Your task to perform on an android device: Set the phone to "Do not disturb". Image 0: 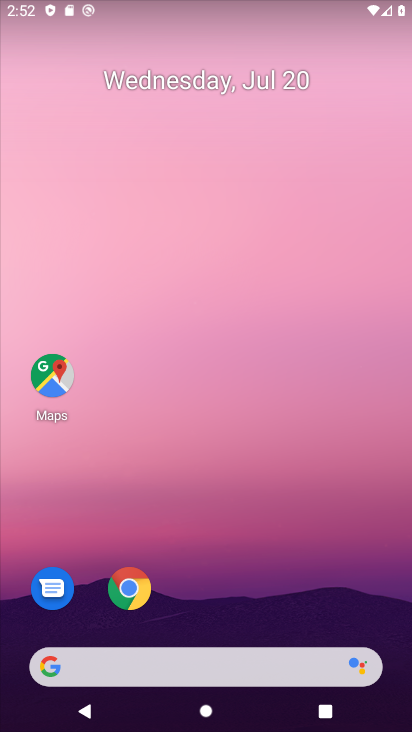
Step 0: drag from (198, 653) to (105, 64)
Your task to perform on an android device: Set the phone to "Do not disturb". Image 1: 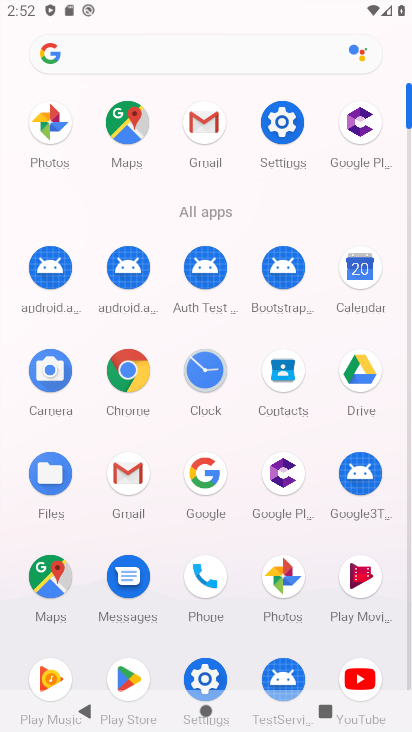
Step 1: drag from (280, 4) to (344, 482)
Your task to perform on an android device: Set the phone to "Do not disturb". Image 2: 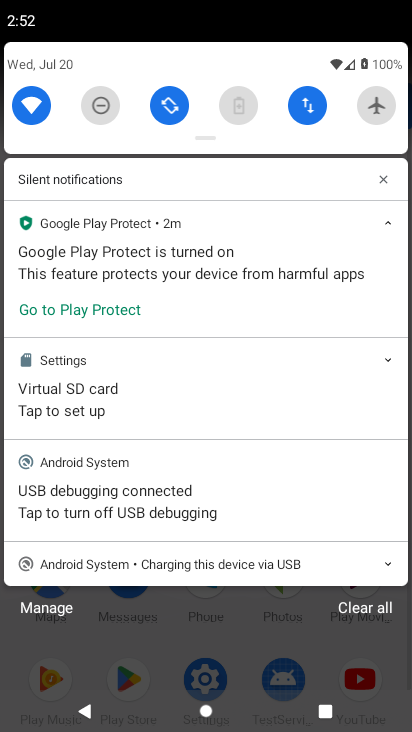
Step 2: click (103, 115)
Your task to perform on an android device: Set the phone to "Do not disturb". Image 3: 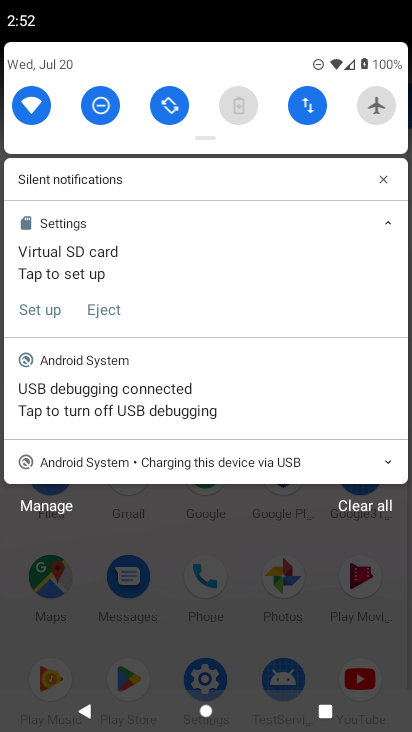
Step 3: task complete